Your task to perform on an android device: Clear all items from cart on target. Search for "usb-c to usb-b" on target, select the first entry, add it to the cart, then select checkout. Image 0: 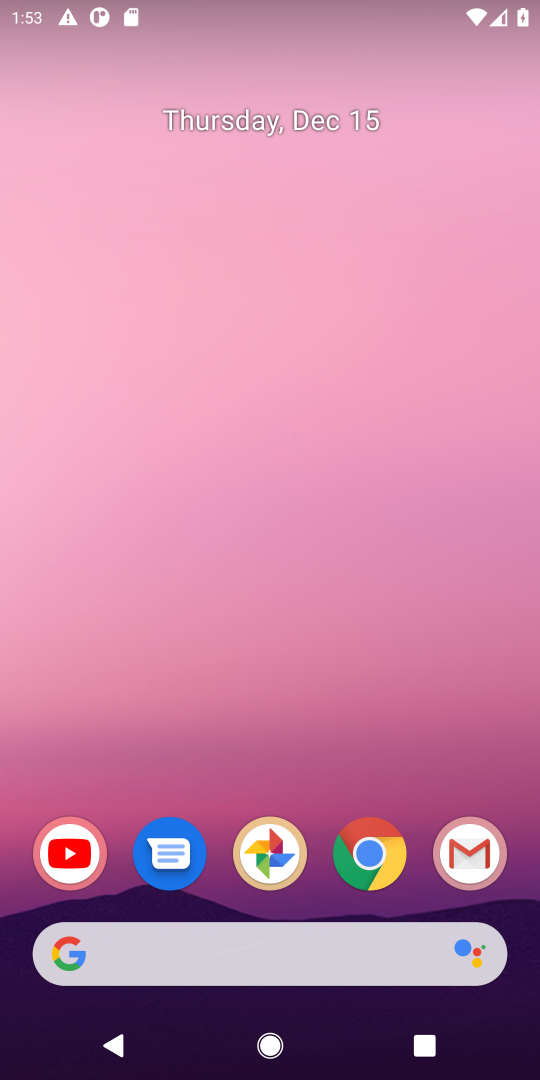
Step 0: drag from (190, 905) to (205, 42)
Your task to perform on an android device: Clear all items from cart on target. Search for "usb-c to usb-b" on target, select the first entry, add it to the cart, then select checkout. Image 1: 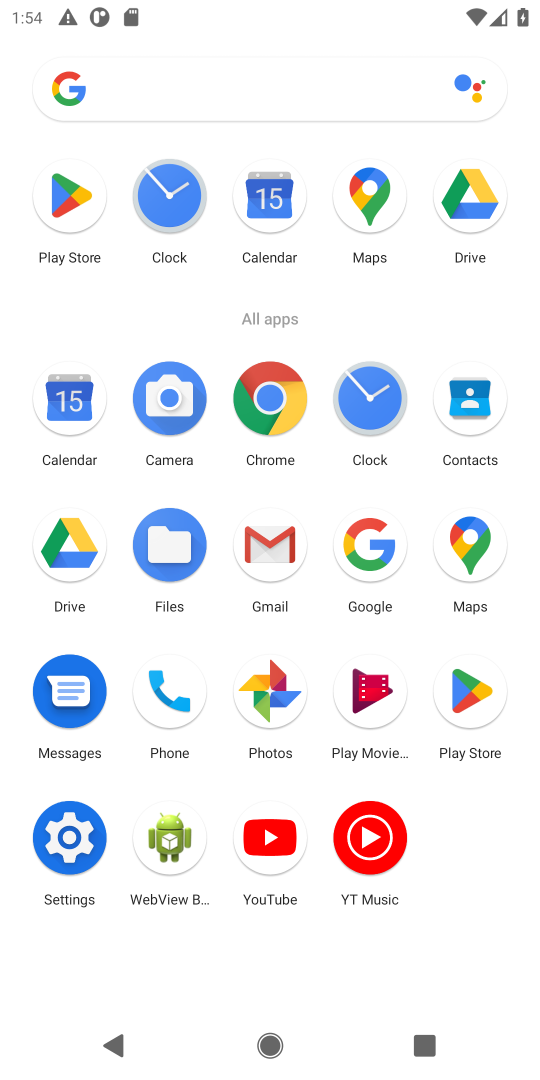
Step 1: click (374, 569)
Your task to perform on an android device: Clear all items from cart on target. Search for "usb-c to usb-b" on target, select the first entry, add it to the cart, then select checkout. Image 2: 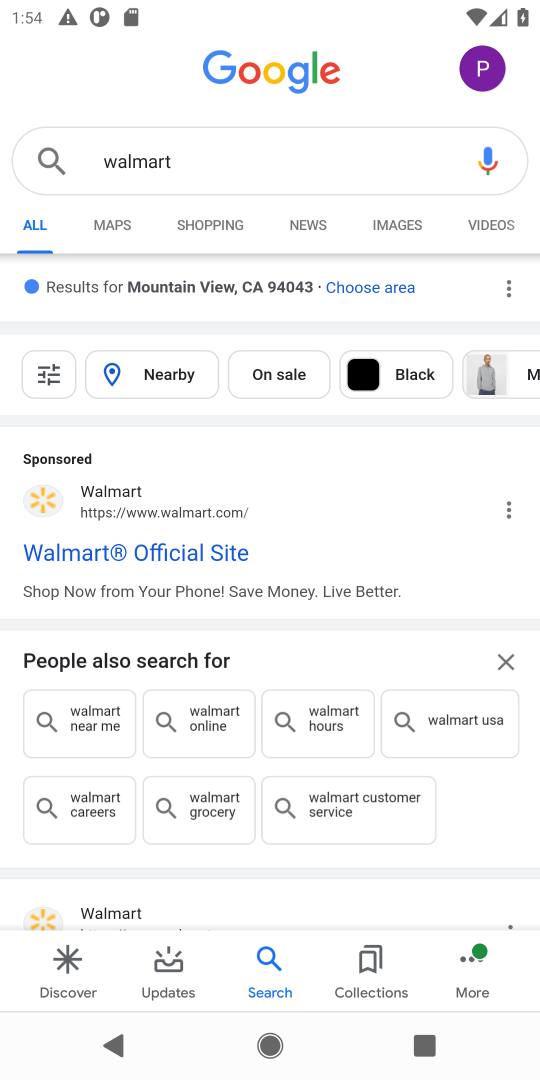
Step 2: click (151, 153)
Your task to perform on an android device: Clear all items from cart on target. Search for "usb-c to usb-b" on target, select the first entry, add it to the cart, then select checkout. Image 3: 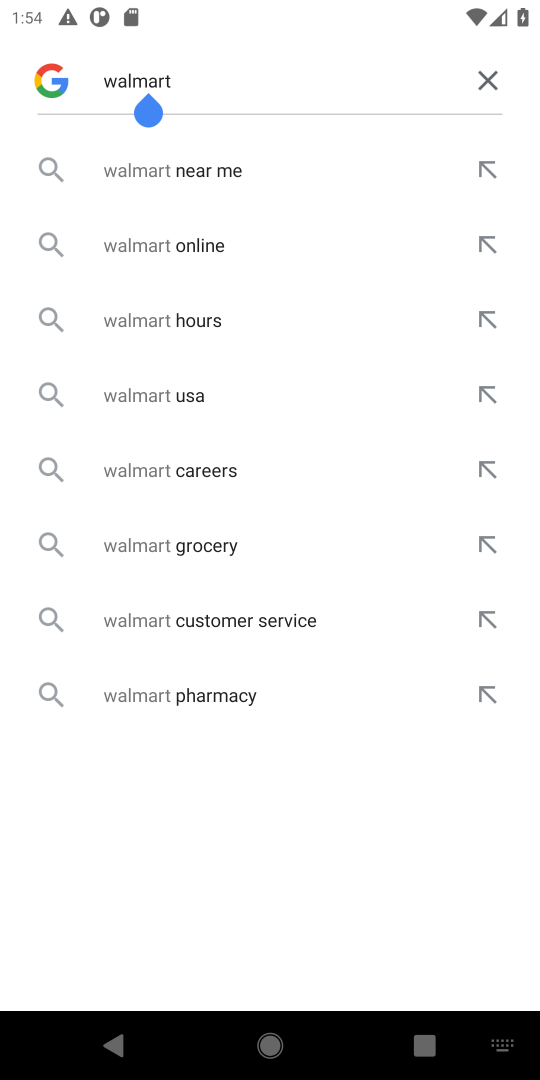
Step 3: click (480, 76)
Your task to perform on an android device: Clear all items from cart on target. Search for "usb-c to usb-b" on target, select the first entry, add it to the cart, then select checkout. Image 4: 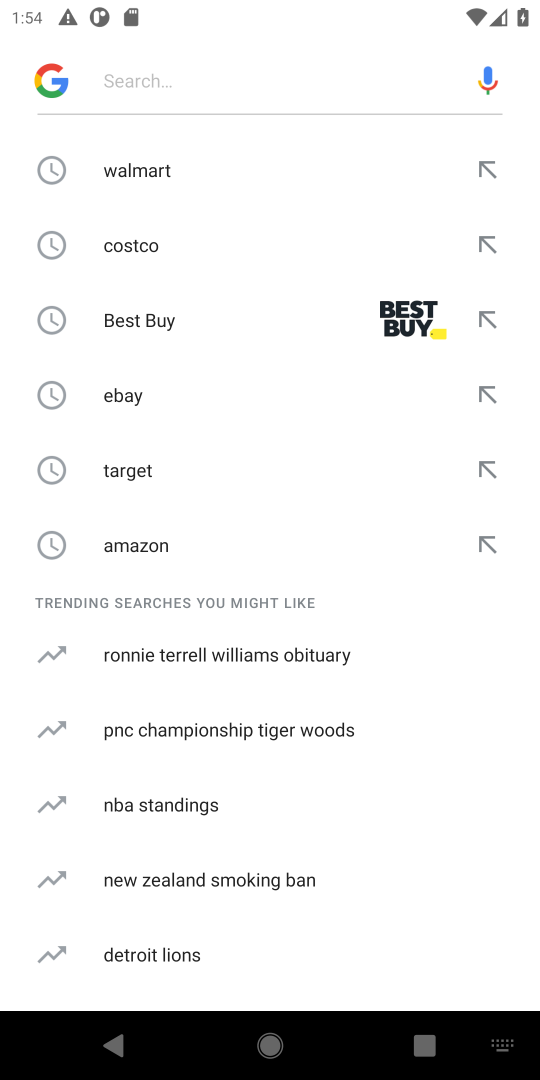
Step 4: click (116, 453)
Your task to perform on an android device: Clear all items from cart on target. Search for "usb-c to usb-b" on target, select the first entry, add it to the cart, then select checkout. Image 5: 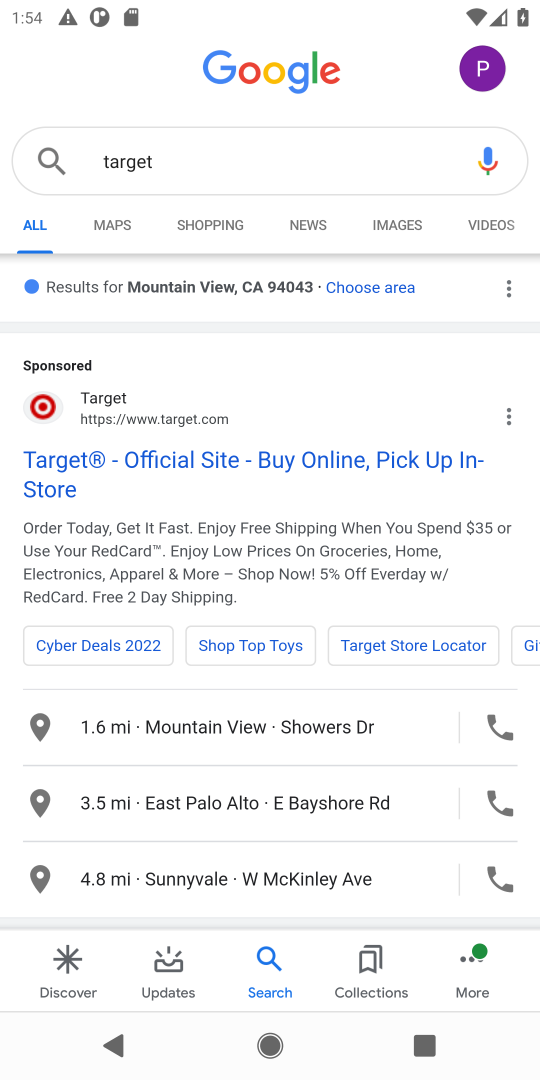
Step 5: click (116, 453)
Your task to perform on an android device: Clear all items from cart on target. Search for "usb-c to usb-b" on target, select the first entry, add it to the cart, then select checkout. Image 6: 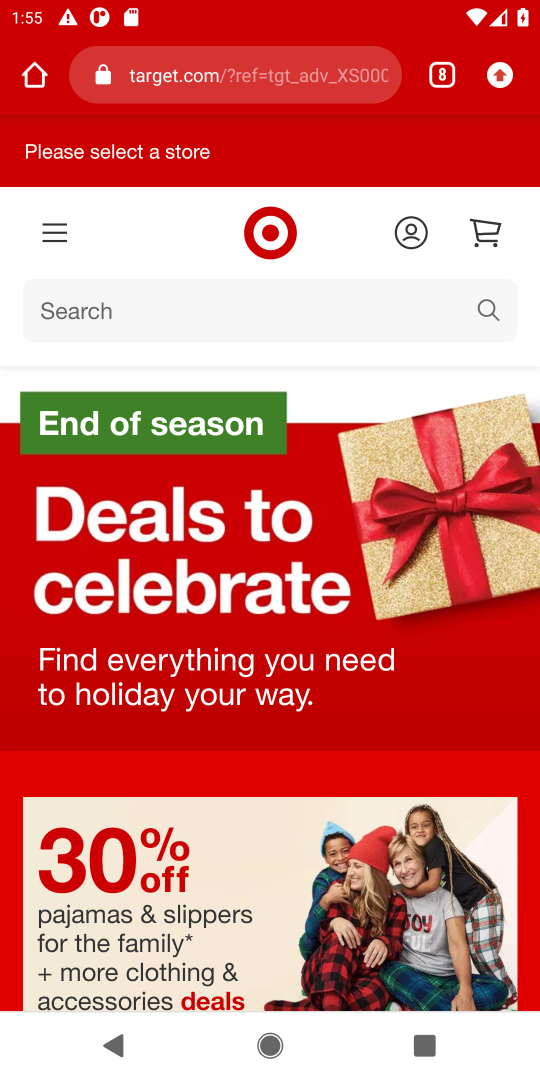
Step 6: click (128, 304)
Your task to perform on an android device: Clear all items from cart on target. Search for "usb-c to usb-b" on target, select the first entry, add it to the cart, then select checkout. Image 7: 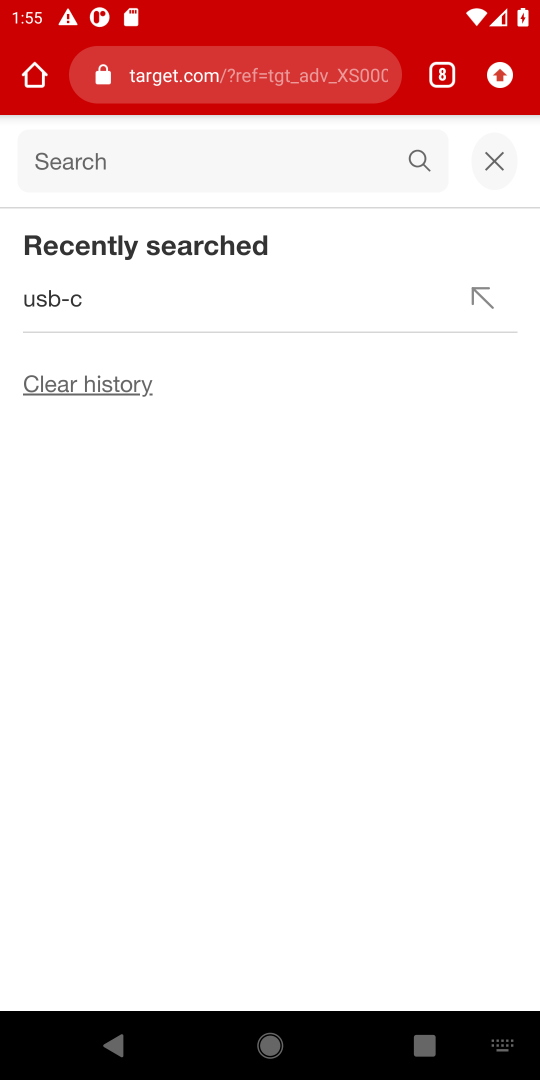
Step 7: type "usb-c to usb-b"
Your task to perform on an android device: Clear all items from cart on target. Search for "usb-c to usb-b" on target, select the first entry, add it to the cart, then select checkout. Image 8: 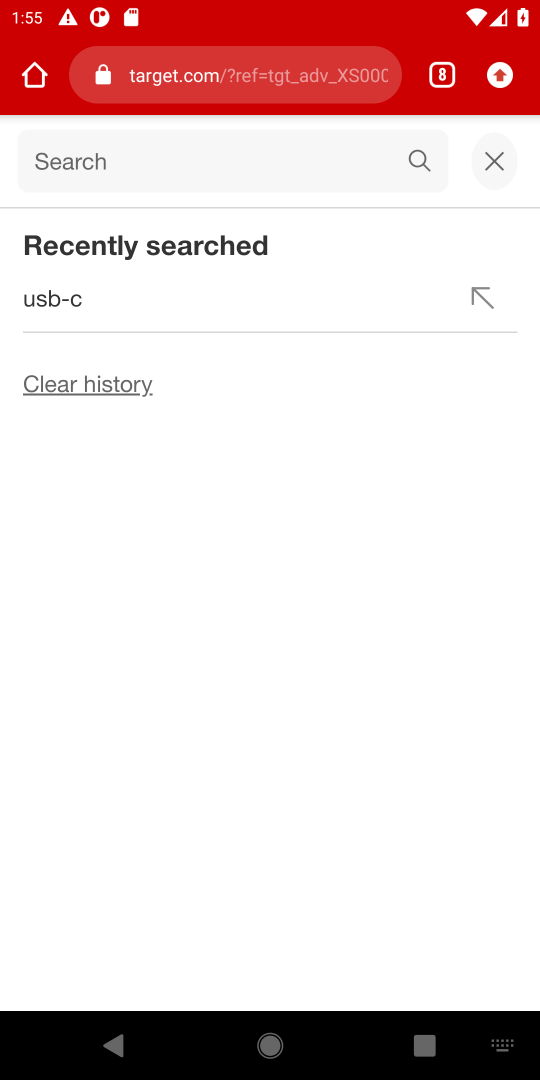
Step 8: click (424, 160)
Your task to perform on an android device: Clear all items from cart on target. Search for "usb-c to usb-b" on target, select the first entry, add it to the cart, then select checkout. Image 9: 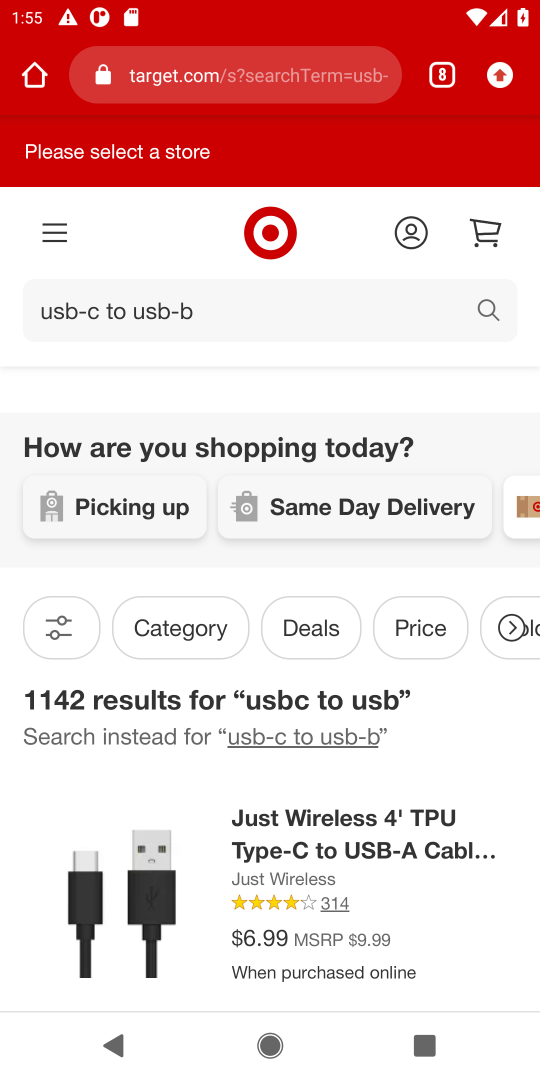
Step 9: drag from (238, 847) to (241, 386)
Your task to perform on an android device: Clear all items from cart on target. Search for "usb-c to usb-b" on target, select the first entry, add it to the cart, then select checkout. Image 10: 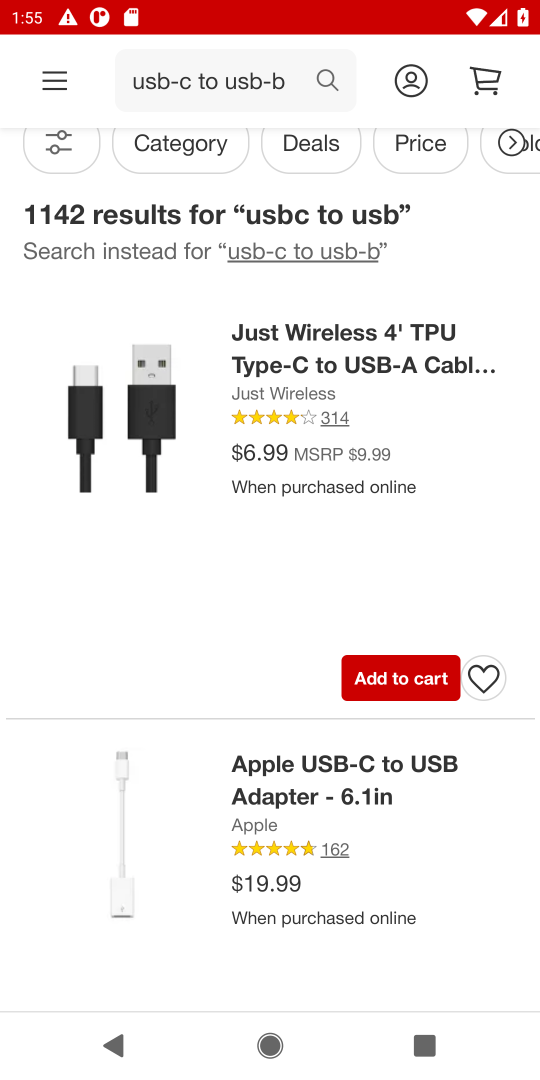
Step 10: click (389, 675)
Your task to perform on an android device: Clear all items from cart on target. Search for "usb-c to usb-b" on target, select the first entry, add it to the cart, then select checkout. Image 11: 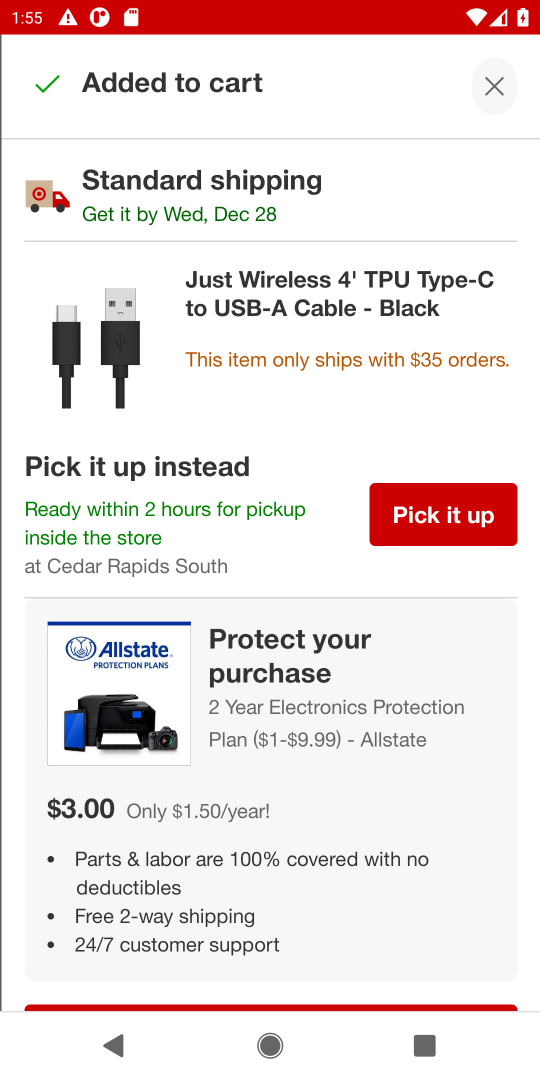
Step 11: click (487, 72)
Your task to perform on an android device: Clear all items from cart on target. Search for "usb-c to usb-b" on target, select the first entry, add it to the cart, then select checkout. Image 12: 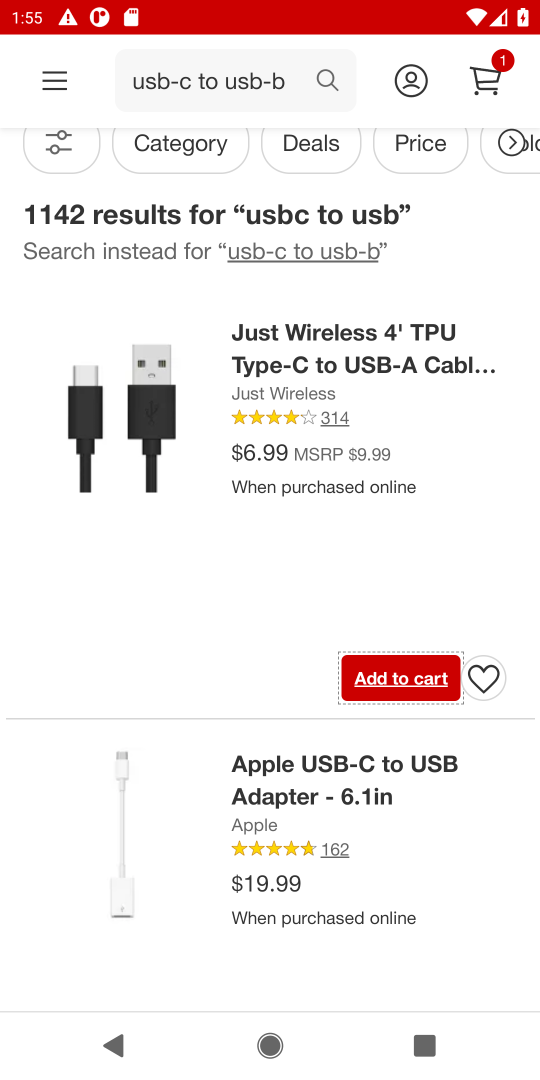
Step 12: click (489, 69)
Your task to perform on an android device: Clear all items from cart on target. Search for "usb-c to usb-b" on target, select the first entry, add it to the cart, then select checkout. Image 13: 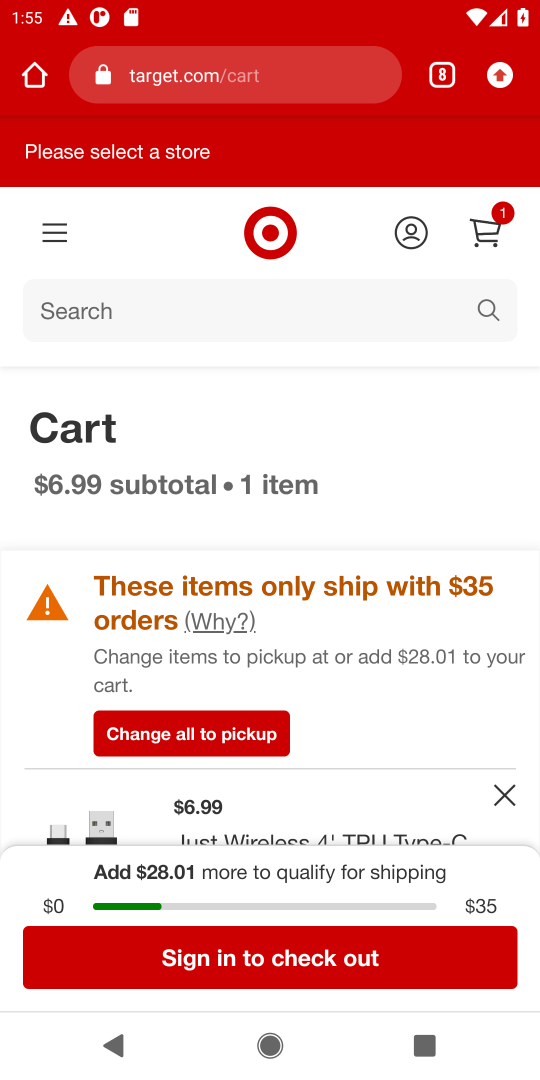
Step 13: click (276, 963)
Your task to perform on an android device: Clear all items from cart on target. Search for "usb-c to usb-b" on target, select the first entry, add it to the cart, then select checkout. Image 14: 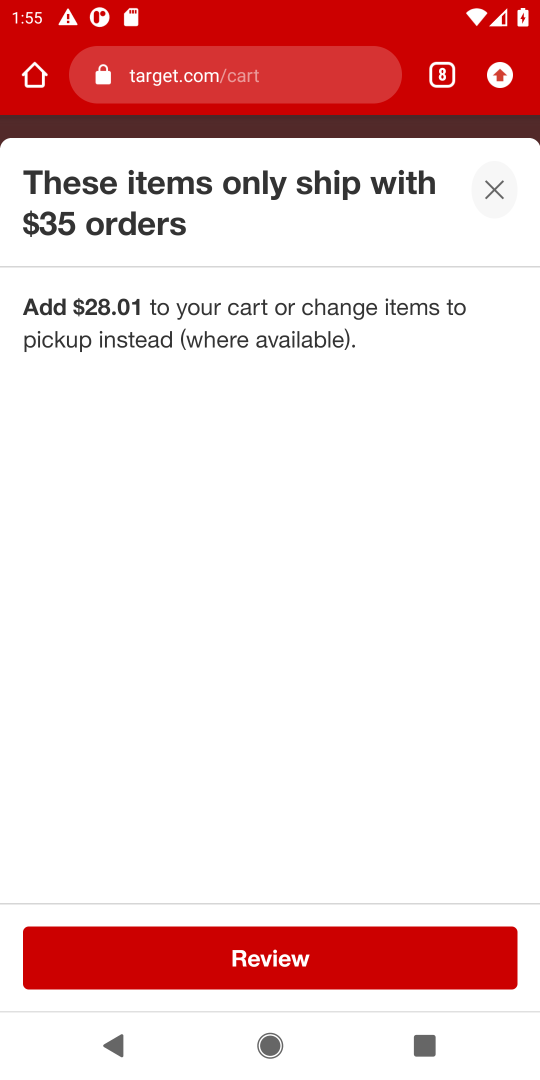
Step 14: task complete